Your task to perform on an android device: turn off smart reply in the gmail app Image 0: 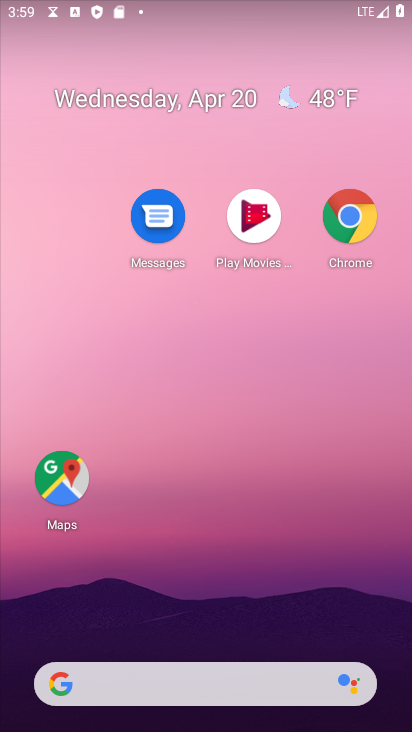
Step 0: drag from (263, 554) to (262, 134)
Your task to perform on an android device: turn off smart reply in the gmail app Image 1: 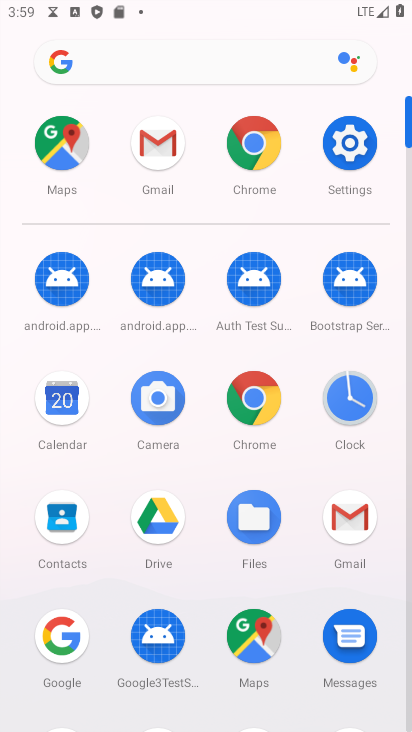
Step 1: click (363, 525)
Your task to perform on an android device: turn off smart reply in the gmail app Image 2: 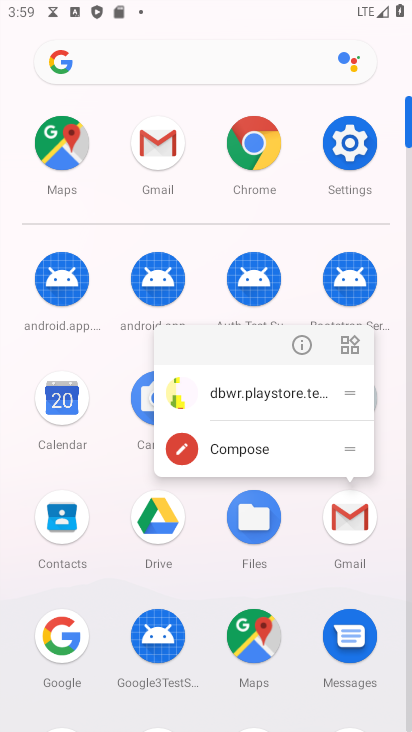
Step 2: click (299, 344)
Your task to perform on an android device: turn off smart reply in the gmail app Image 3: 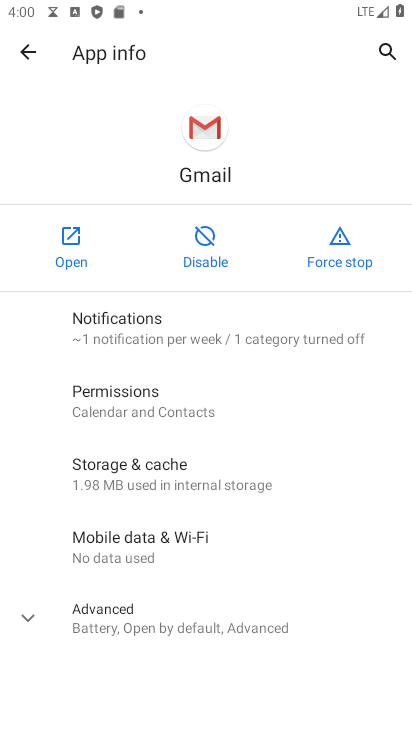
Step 3: click (59, 253)
Your task to perform on an android device: turn off smart reply in the gmail app Image 4: 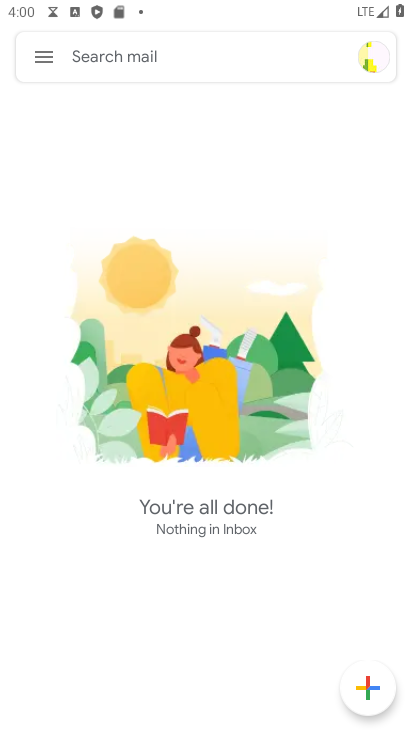
Step 4: click (44, 65)
Your task to perform on an android device: turn off smart reply in the gmail app Image 5: 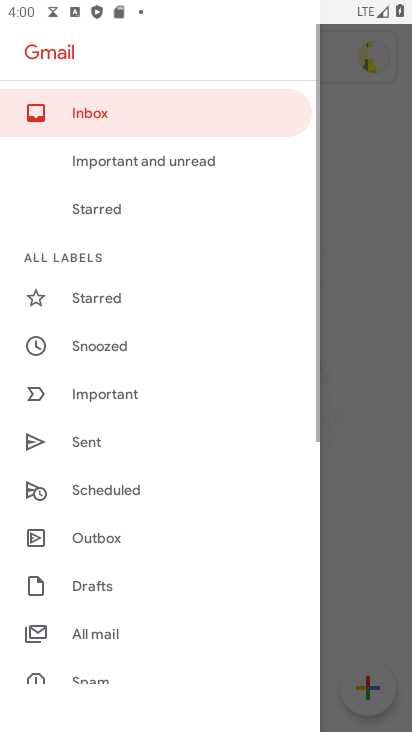
Step 5: drag from (127, 538) to (137, 244)
Your task to perform on an android device: turn off smart reply in the gmail app Image 6: 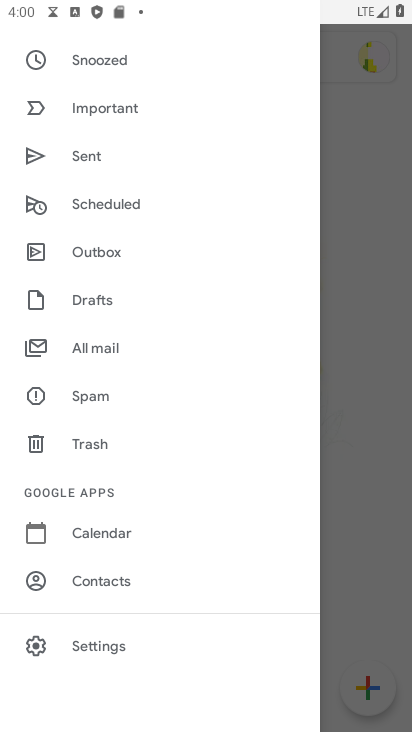
Step 6: click (117, 629)
Your task to perform on an android device: turn off smart reply in the gmail app Image 7: 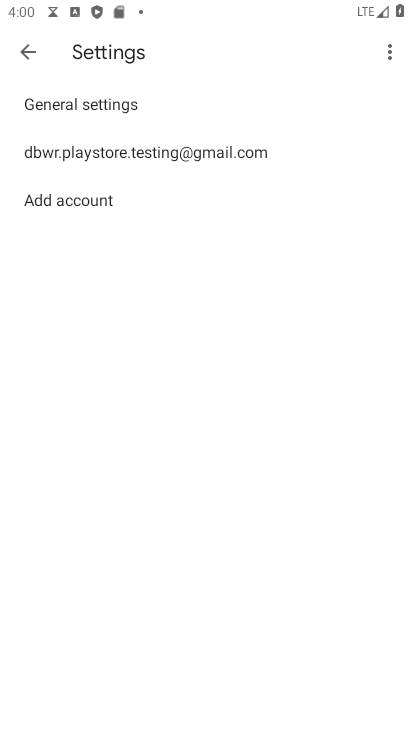
Step 7: click (182, 152)
Your task to perform on an android device: turn off smart reply in the gmail app Image 8: 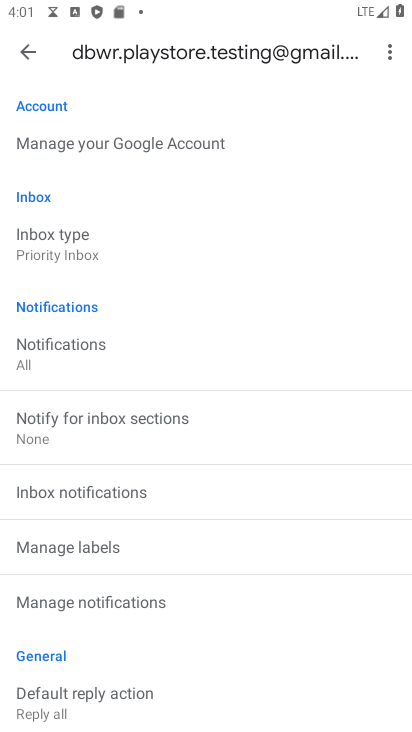
Step 8: task complete